Your task to perform on an android device: Open the calendar app, open the side menu, and click the "Day" option Image 0: 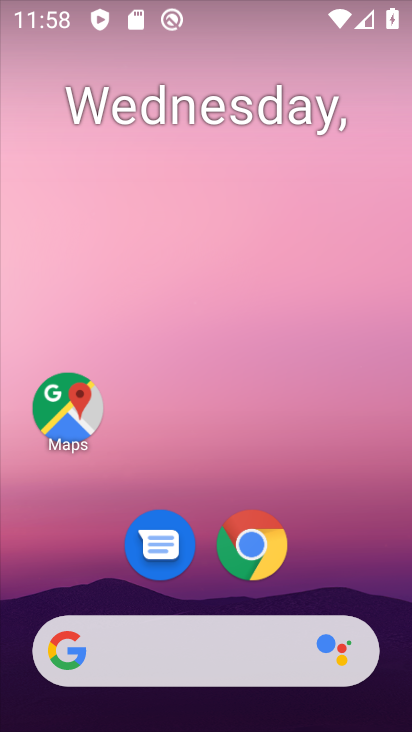
Step 0: drag from (377, 558) to (274, 34)
Your task to perform on an android device: Open the calendar app, open the side menu, and click the "Day" option Image 1: 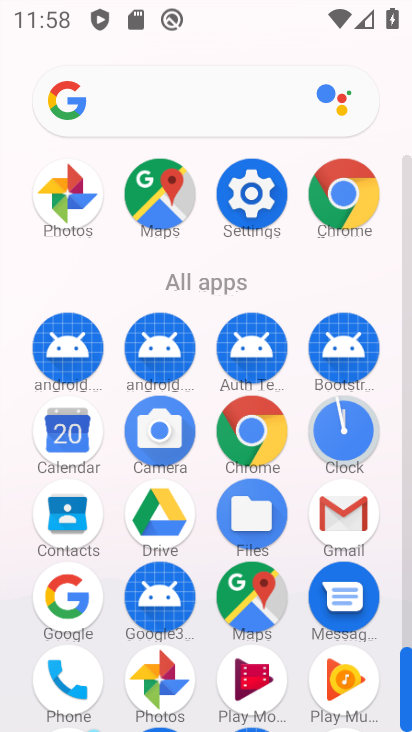
Step 1: click (71, 444)
Your task to perform on an android device: Open the calendar app, open the side menu, and click the "Day" option Image 2: 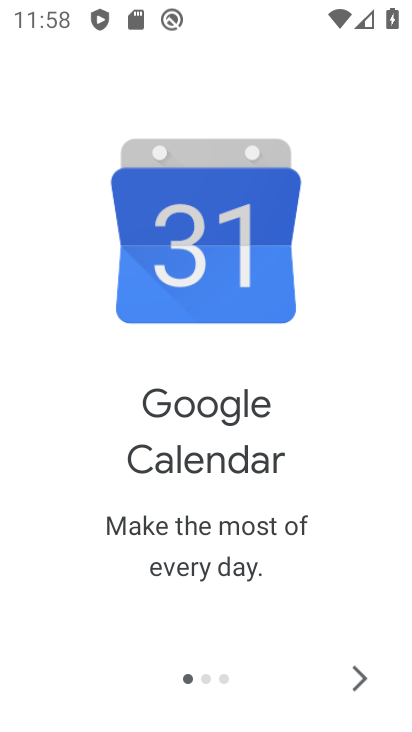
Step 2: click (355, 671)
Your task to perform on an android device: Open the calendar app, open the side menu, and click the "Day" option Image 3: 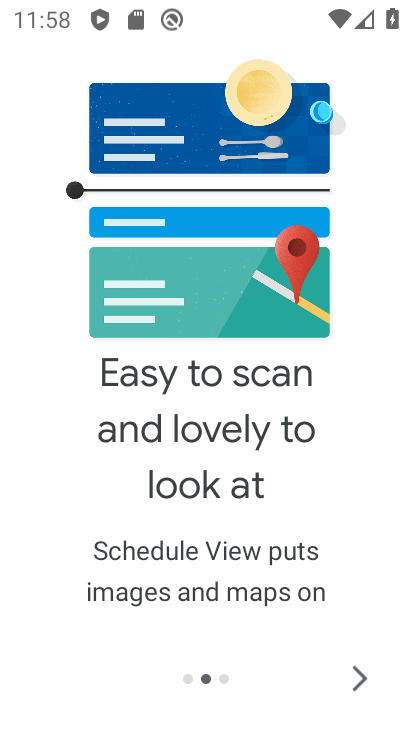
Step 3: click (355, 671)
Your task to perform on an android device: Open the calendar app, open the side menu, and click the "Day" option Image 4: 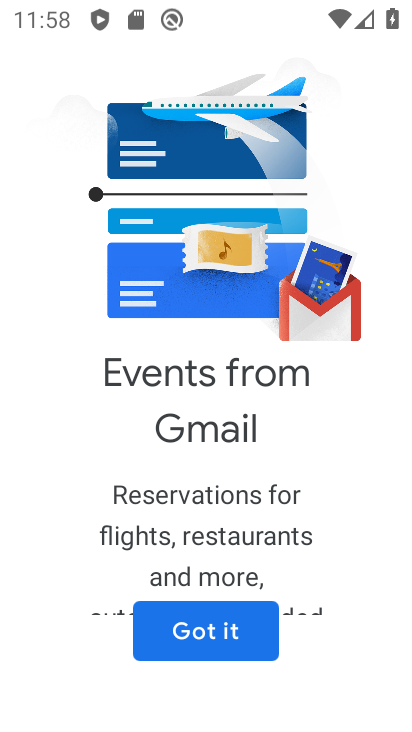
Step 4: click (242, 645)
Your task to perform on an android device: Open the calendar app, open the side menu, and click the "Day" option Image 5: 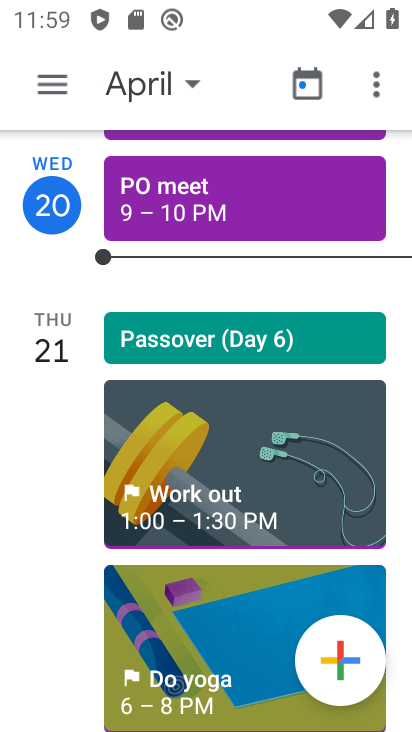
Step 5: click (49, 89)
Your task to perform on an android device: Open the calendar app, open the side menu, and click the "Day" option Image 6: 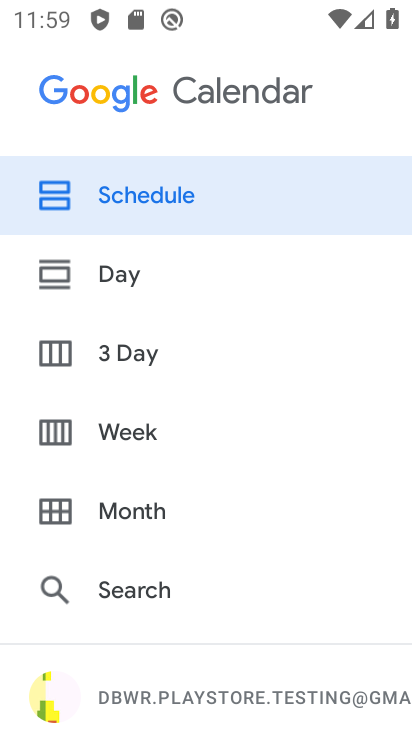
Step 6: click (134, 282)
Your task to perform on an android device: Open the calendar app, open the side menu, and click the "Day" option Image 7: 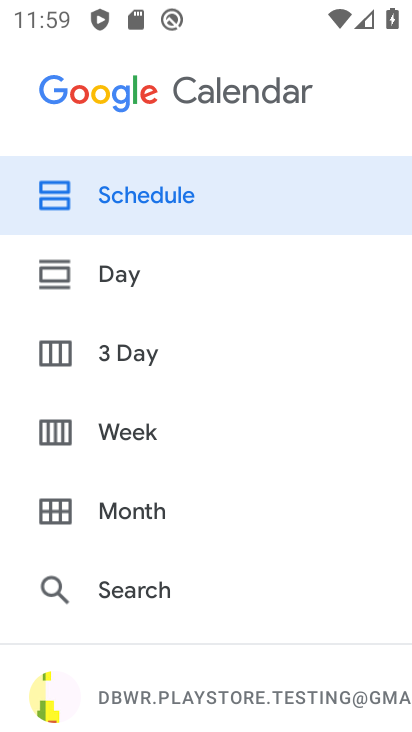
Step 7: click (131, 278)
Your task to perform on an android device: Open the calendar app, open the side menu, and click the "Day" option Image 8: 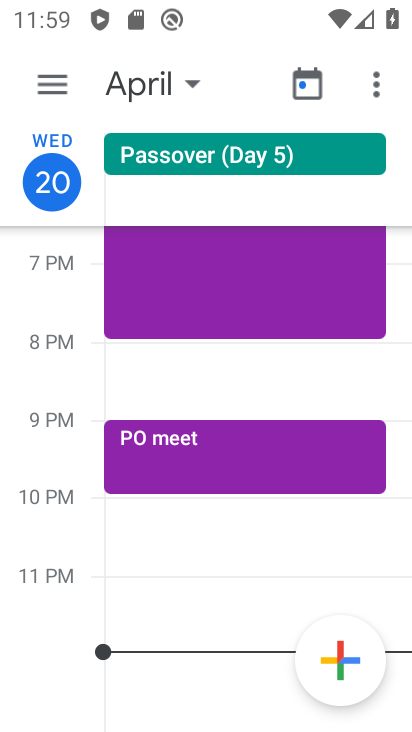
Step 8: task complete